Your task to perform on an android device: read, delete, or share a saved page in the chrome app Image 0: 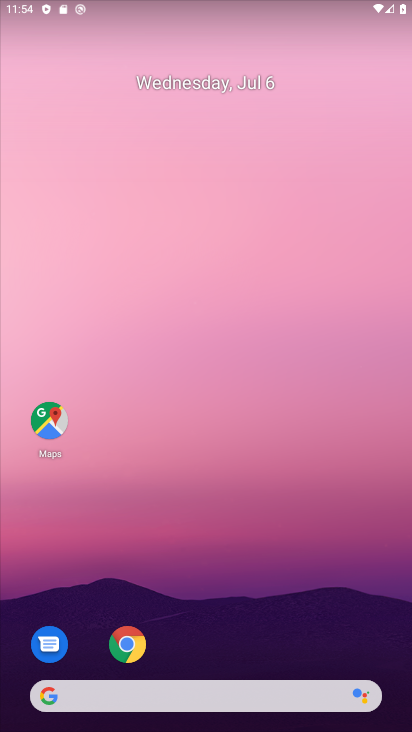
Step 0: click (121, 640)
Your task to perform on an android device: read, delete, or share a saved page in the chrome app Image 1: 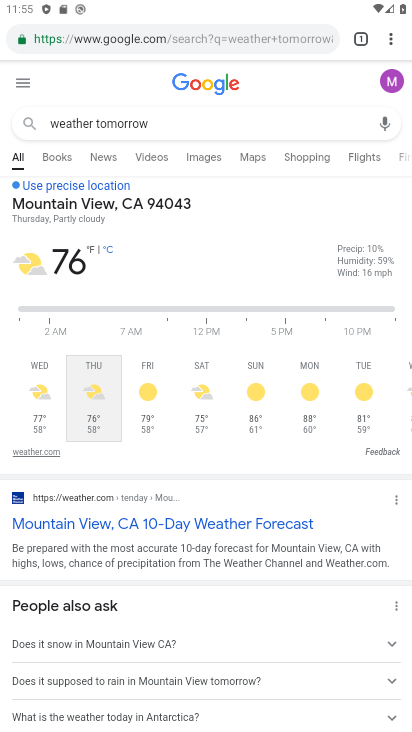
Step 1: click (389, 35)
Your task to perform on an android device: read, delete, or share a saved page in the chrome app Image 2: 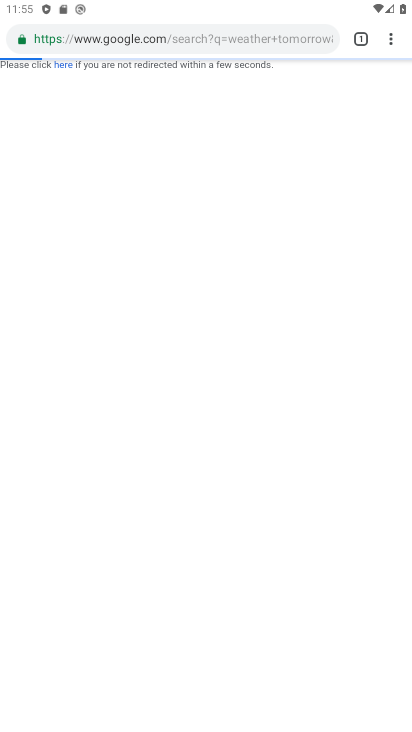
Step 2: drag from (388, 41) to (272, 251)
Your task to perform on an android device: read, delete, or share a saved page in the chrome app Image 3: 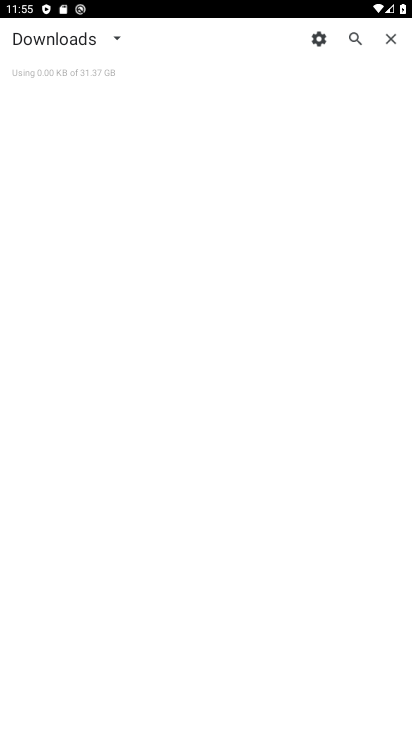
Step 3: click (105, 38)
Your task to perform on an android device: read, delete, or share a saved page in the chrome app Image 4: 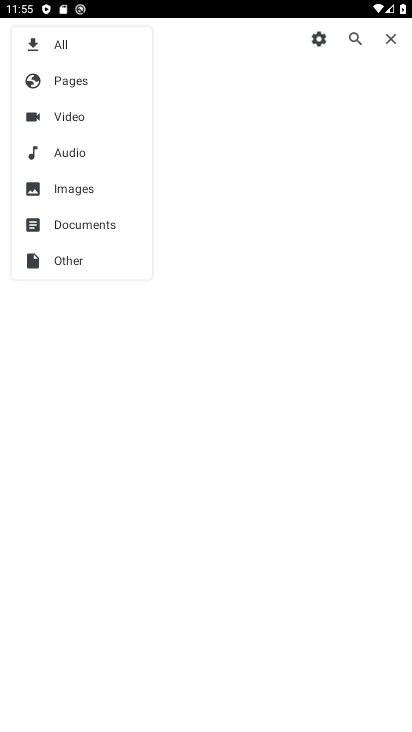
Step 4: click (80, 82)
Your task to perform on an android device: read, delete, or share a saved page in the chrome app Image 5: 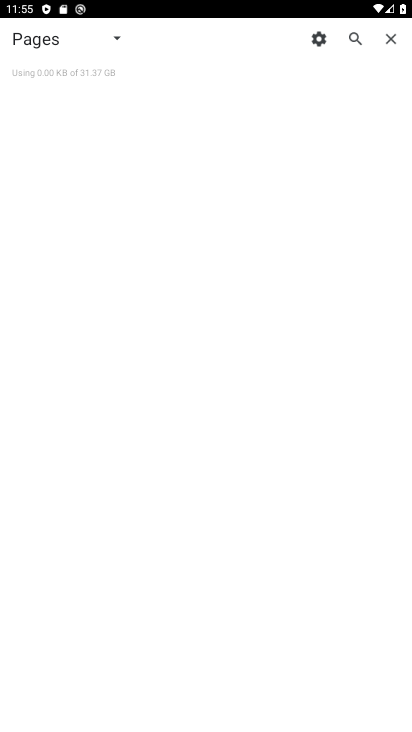
Step 5: task complete